Your task to perform on an android device: refresh tabs in the chrome app Image 0: 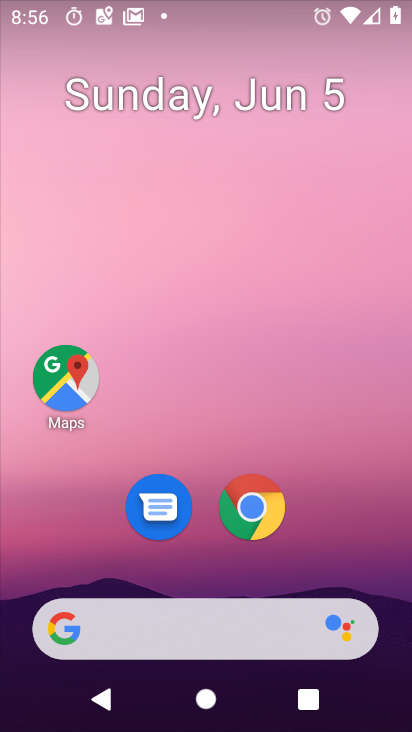
Step 0: drag from (249, 677) to (253, 148)
Your task to perform on an android device: refresh tabs in the chrome app Image 1: 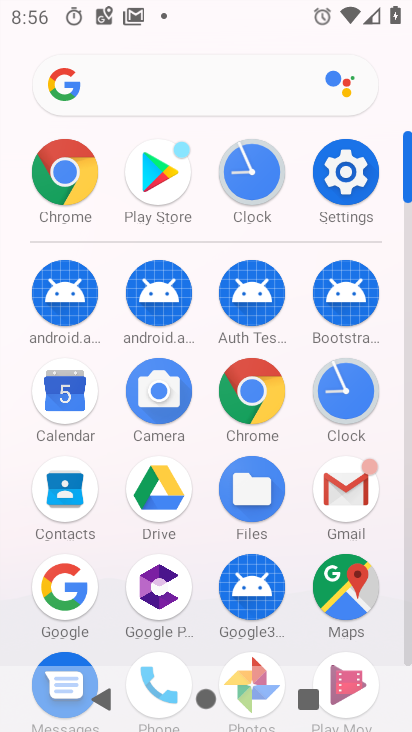
Step 1: click (76, 163)
Your task to perform on an android device: refresh tabs in the chrome app Image 2: 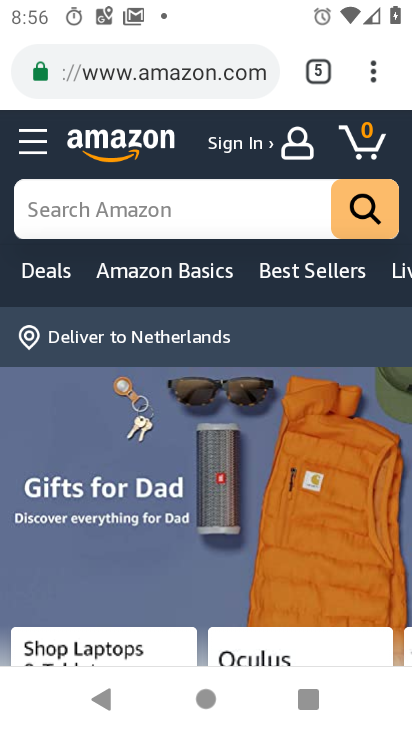
Step 2: click (362, 77)
Your task to perform on an android device: refresh tabs in the chrome app Image 3: 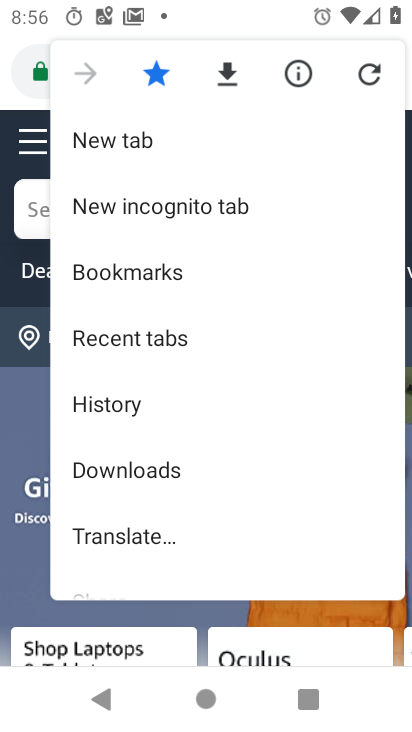
Step 3: click (370, 73)
Your task to perform on an android device: refresh tabs in the chrome app Image 4: 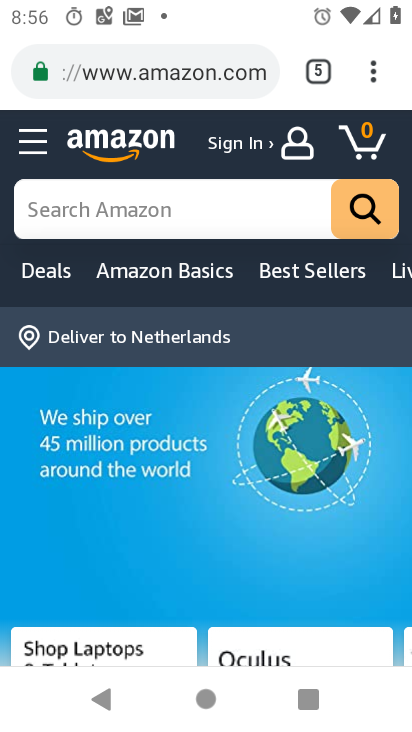
Step 4: task complete